Your task to perform on an android device: Search for sushi restaurants on Maps Image 0: 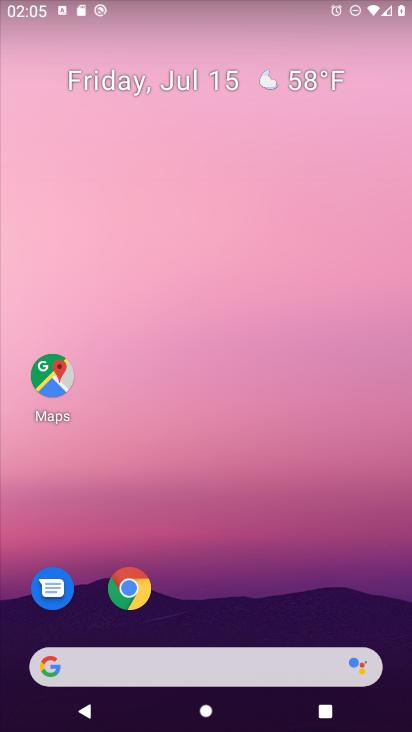
Step 0: click (54, 375)
Your task to perform on an android device: Search for sushi restaurants on Maps Image 1: 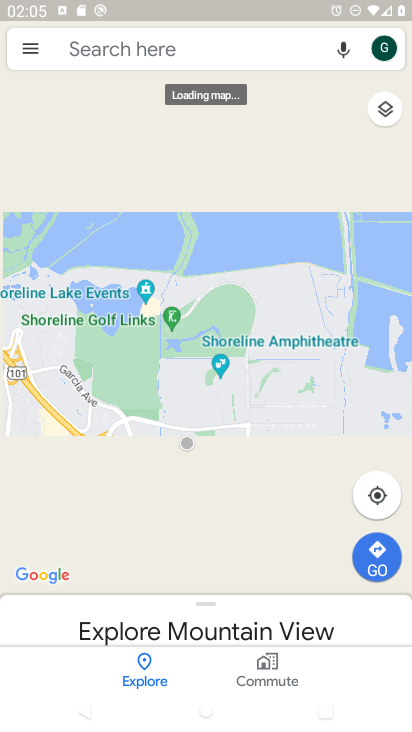
Step 1: click (147, 41)
Your task to perform on an android device: Search for sushi restaurants on Maps Image 2: 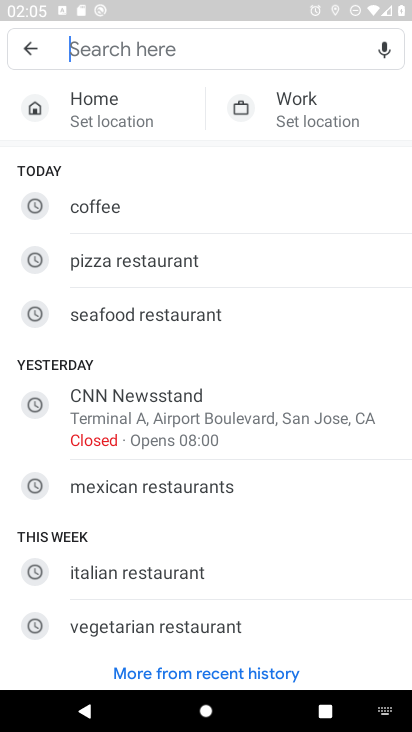
Step 2: type "sushi restaurants"
Your task to perform on an android device: Search for sushi restaurants on Maps Image 3: 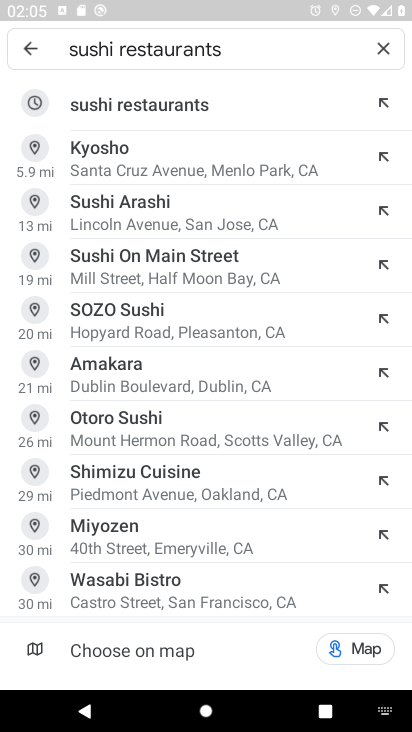
Step 3: click (118, 105)
Your task to perform on an android device: Search for sushi restaurants on Maps Image 4: 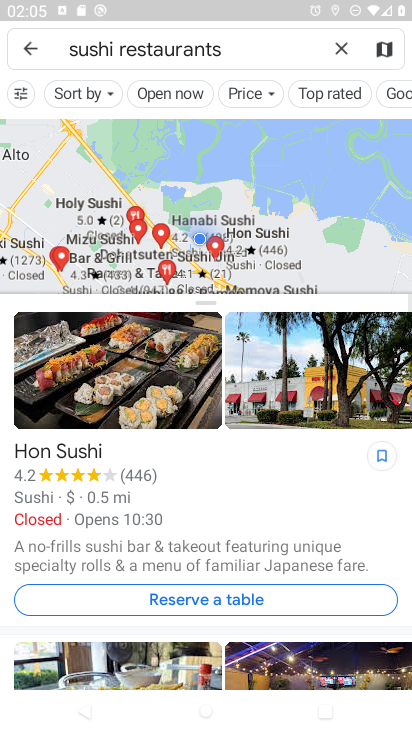
Step 4: task complete